Your task to perform on an android device: Play the latest video from the Washington Post Image 0: 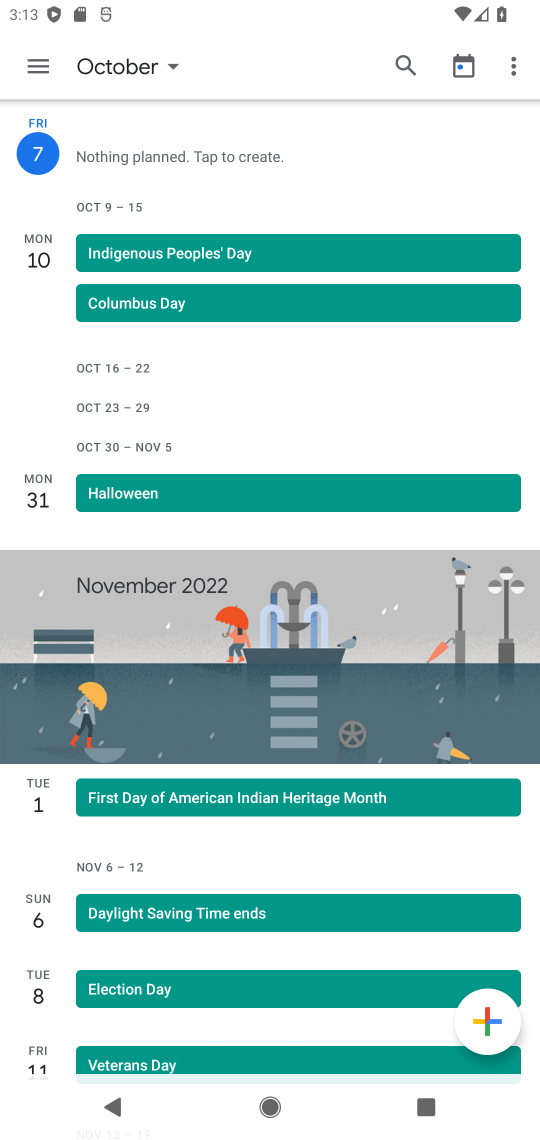
Step 0: press home button
Your task to perform on an android device: Play the latest video from the Washington Post Image 1: 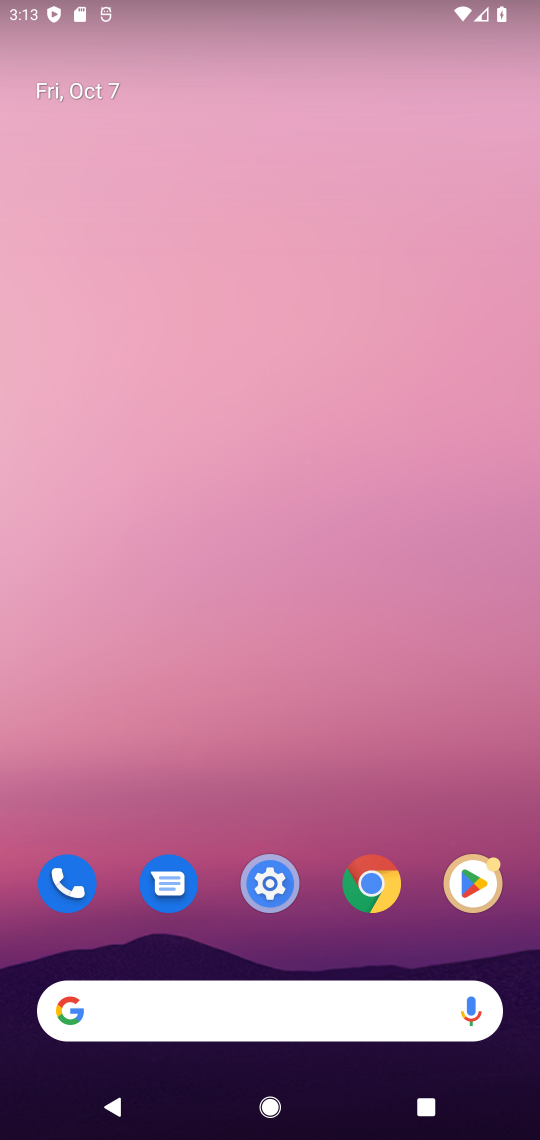
Step 1: drag from (244, 995) to (218, 46)
Your task to perform on an android device: Play the latest video from the Washington Post Image 2: 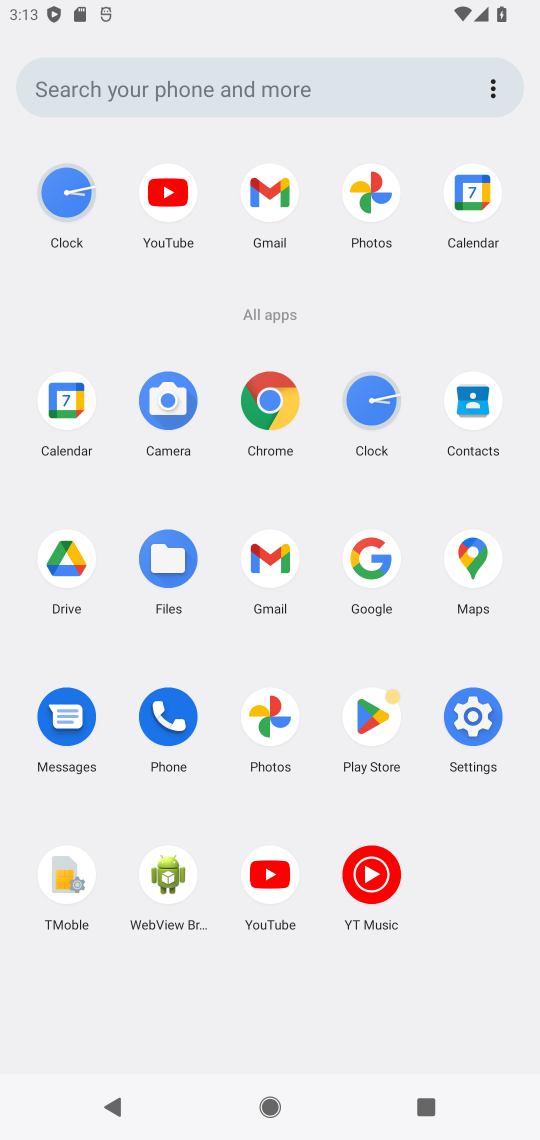
Step 2: click (287, 897)
Your task to perform on an android device: Play the latest video from the Washington Post Image 3: 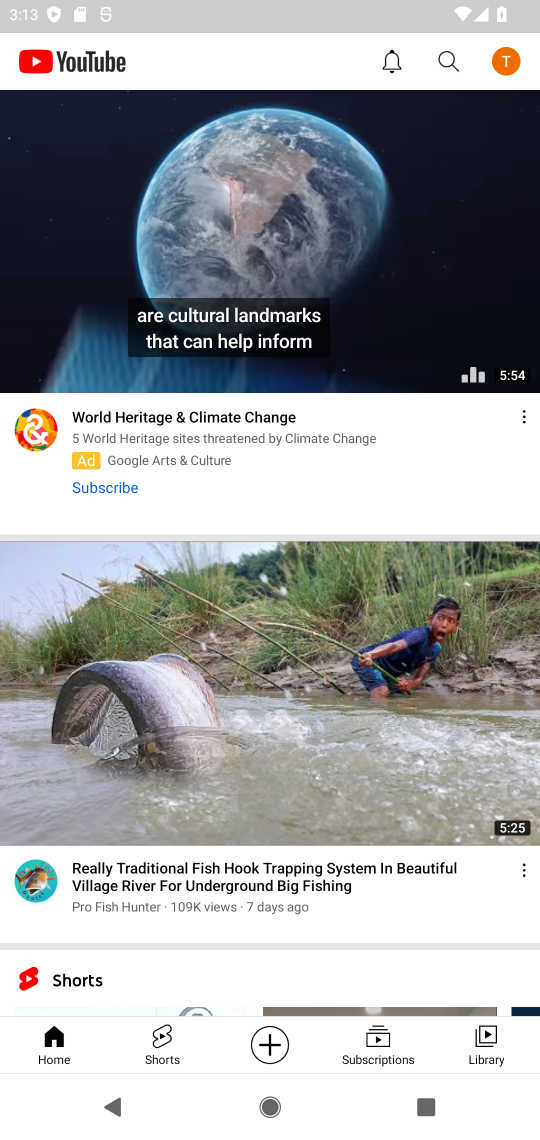
Step 3: click (434, 66)
Your task to perform on an android device: Play the latest video from the Washington Post Image 4: 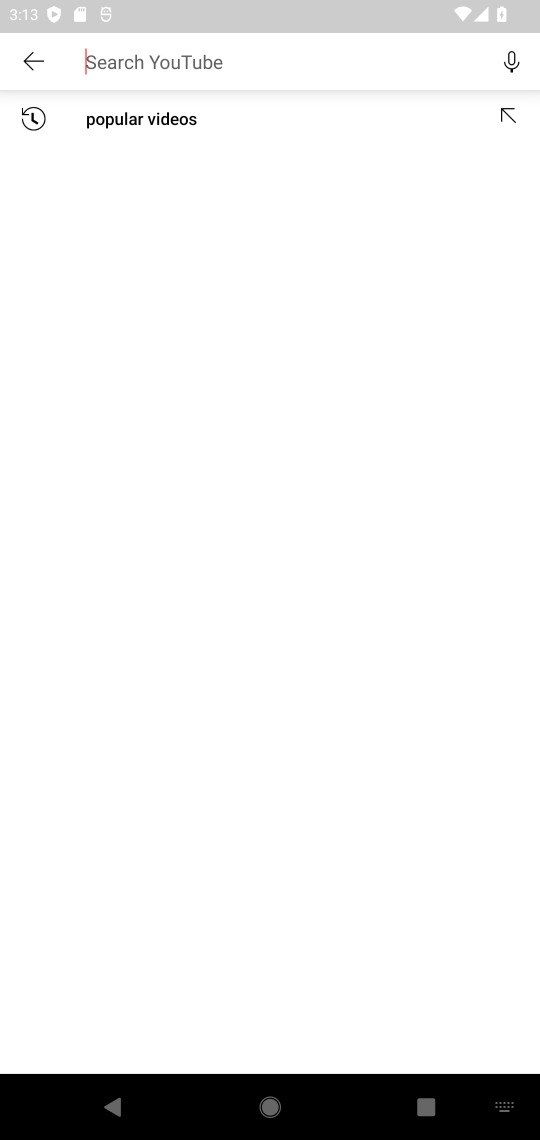
Step 4: type " latest video from the Washington Post"
Your task to perform on an android device: Play the latest video from the Washington Post Image 5: 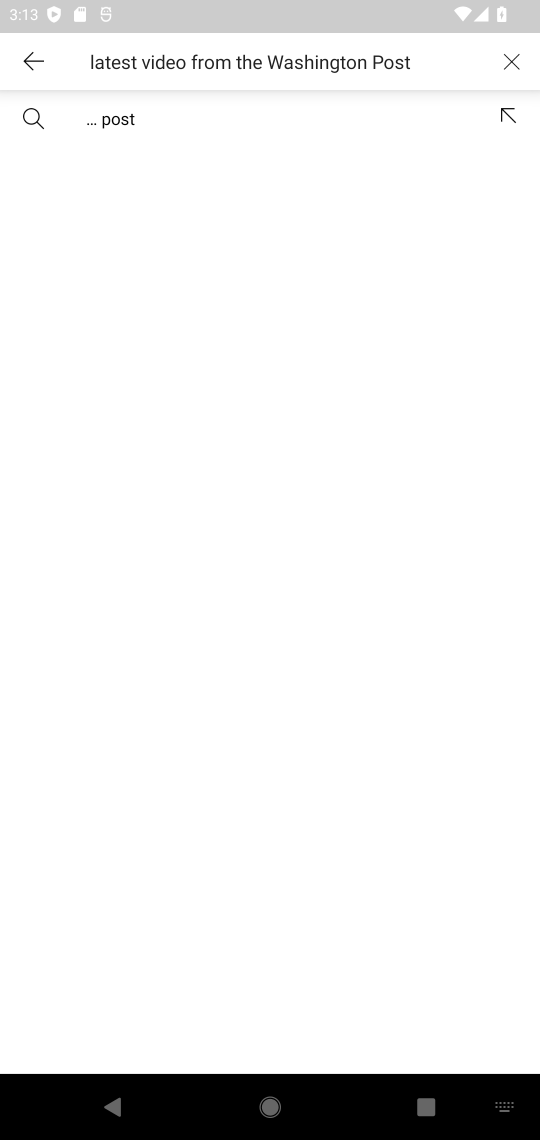
Step 5: press enter
Your task to perform on an android device: Play the latest video from the Washington Post Image 6: 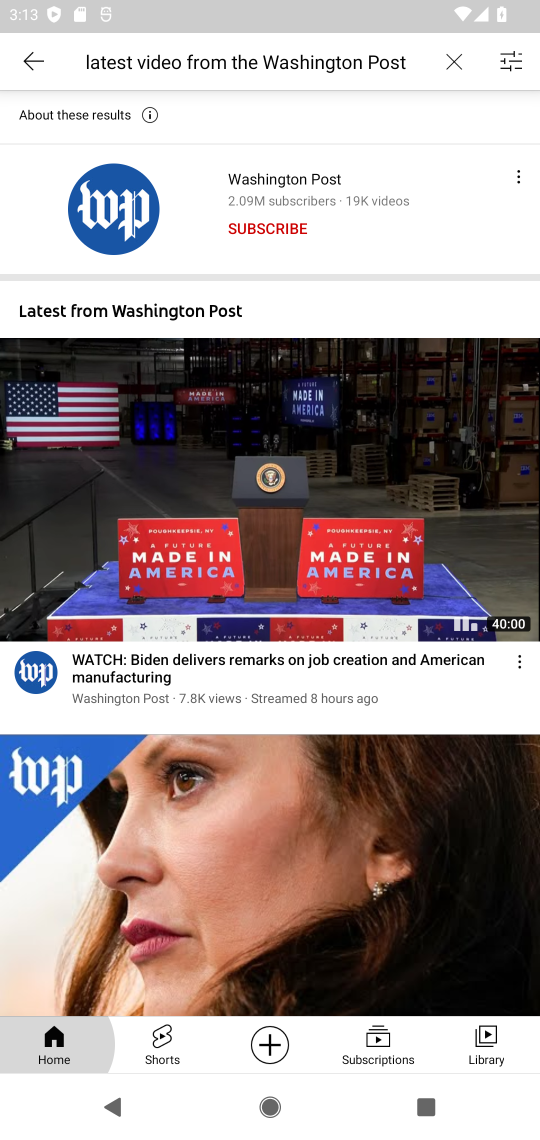
Step 6: click (324, 449)
Your task to perform on an android device: Play the latest video from the Washington Post Image 7: 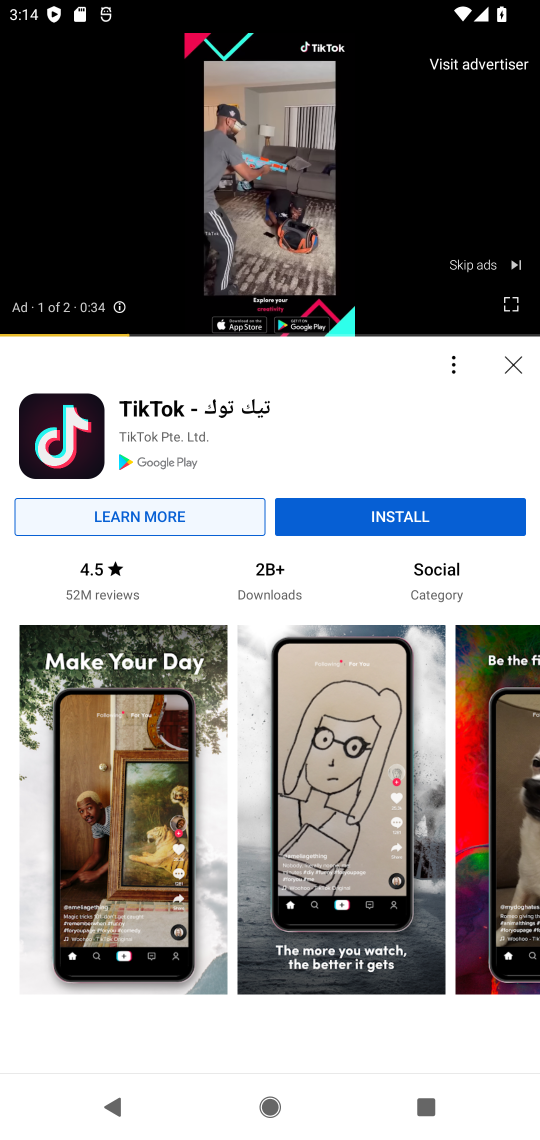
Step 7: click (470, 259)
Your task to perform on an android device: Play the latest video from the Washington Post Image 8: 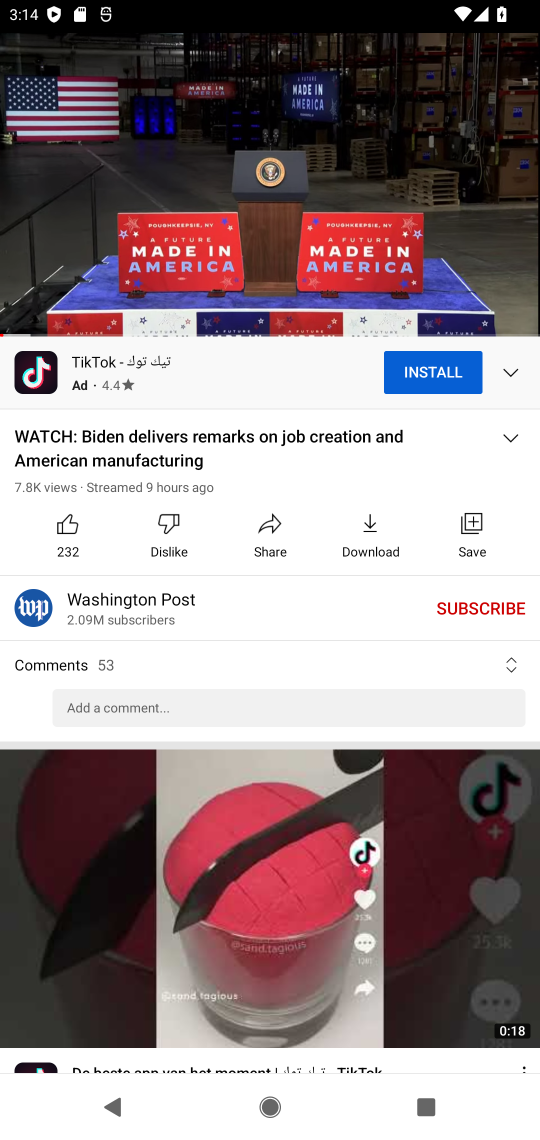
Step 8: task complete